Your task to perform on an android device: uninstall "Google Play services" Image 0: 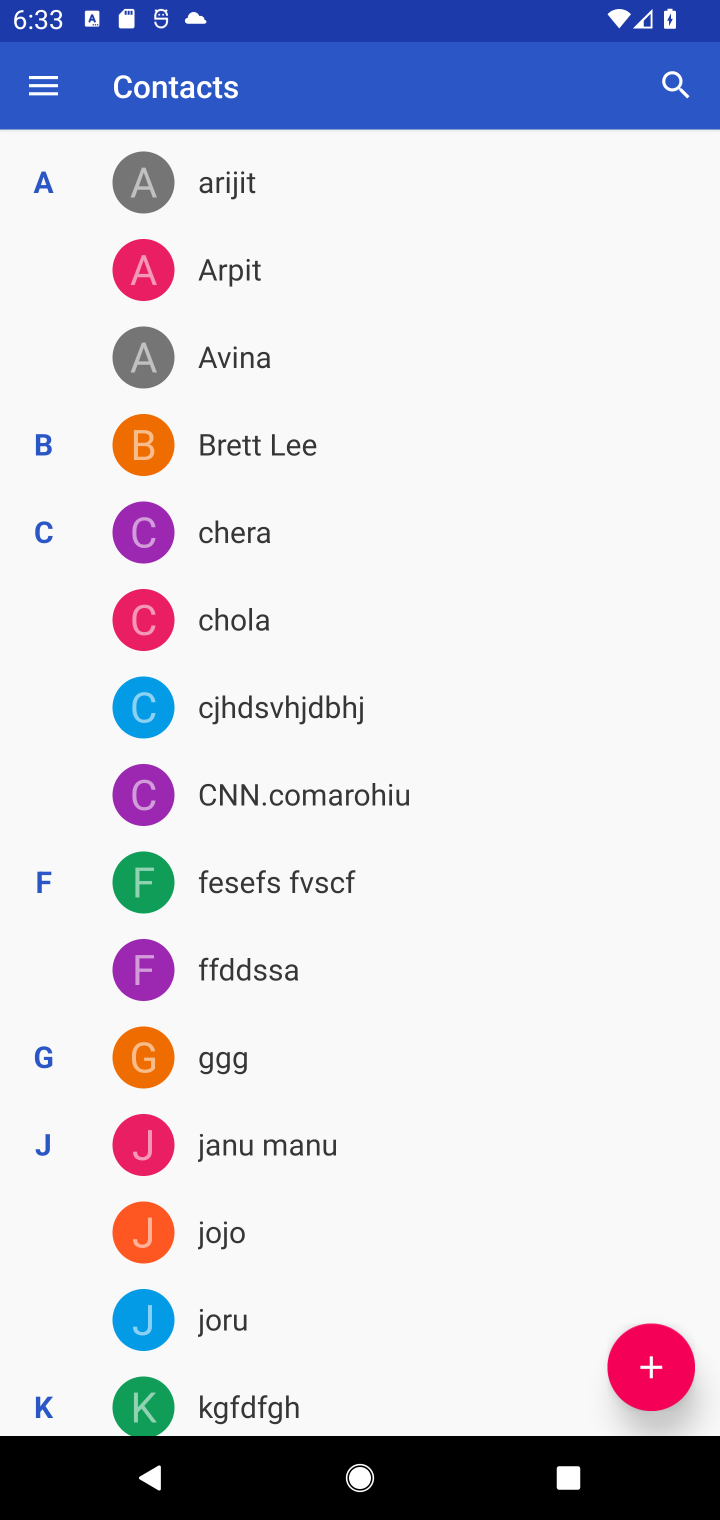
Step 0: press home button
Your task to perform on an android device: uninstall "Google Play services" Image 1: 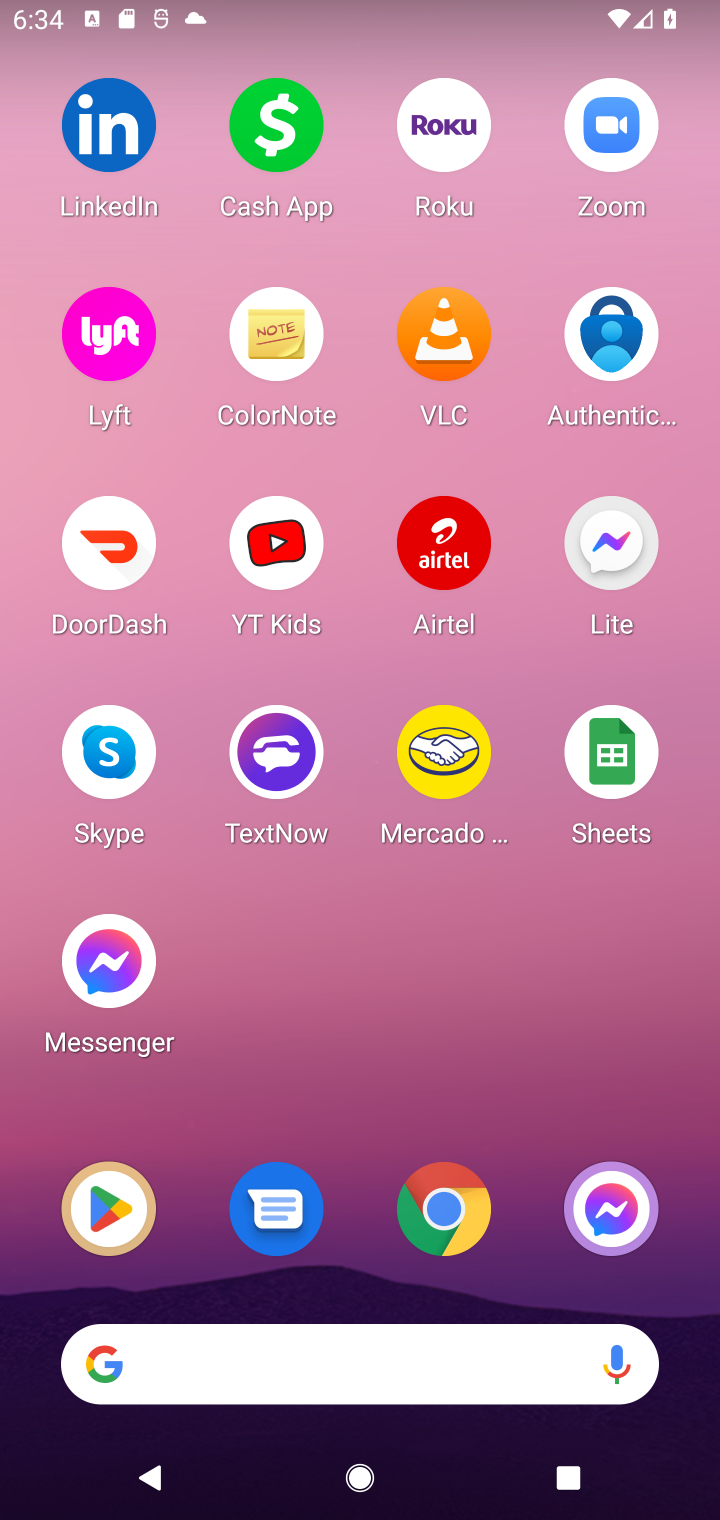
Step 1: click (86, 1215)
Your task to perform on an android device: uninstall "Google Play services" Image 2: 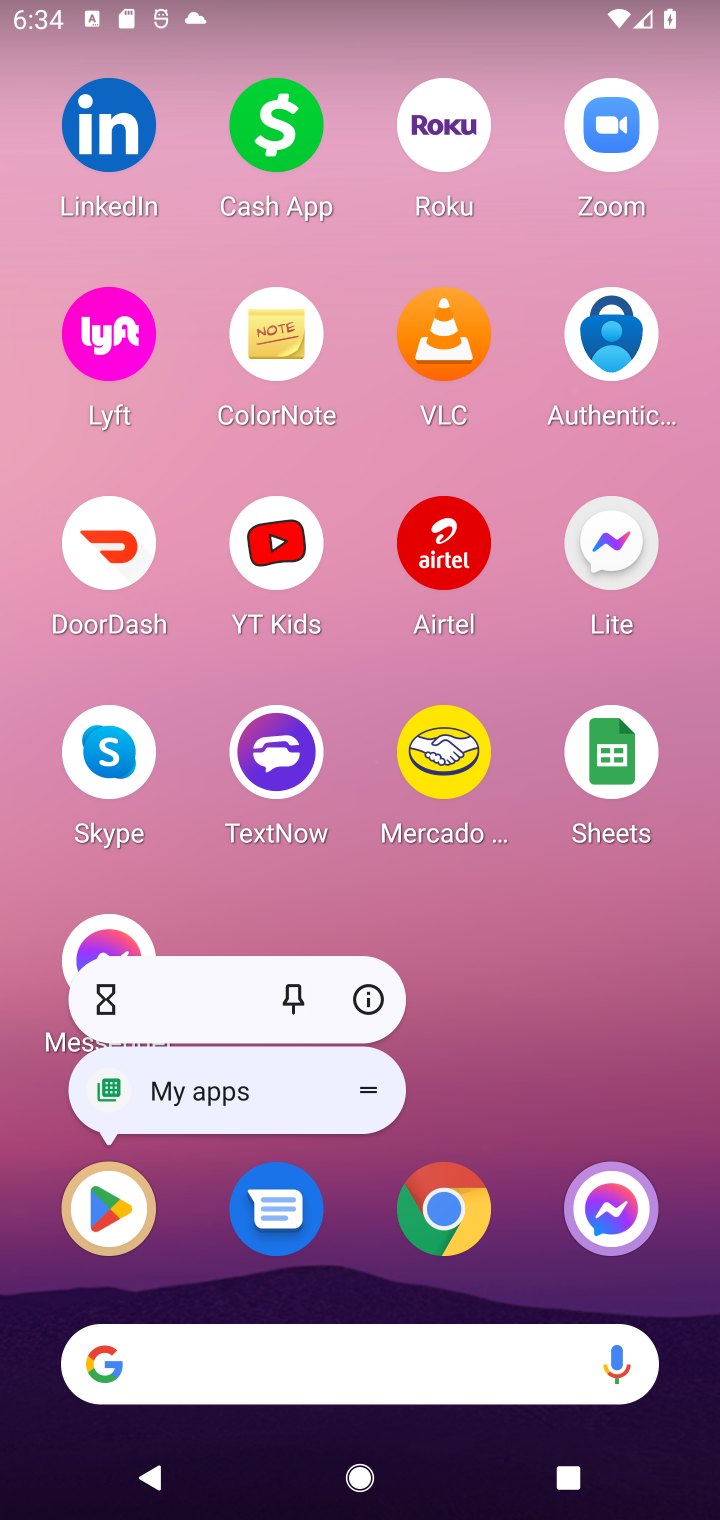
Step 2: click (90, 1223)
Your task to perform on an android device: uninstall "Google Play services" Image 3: 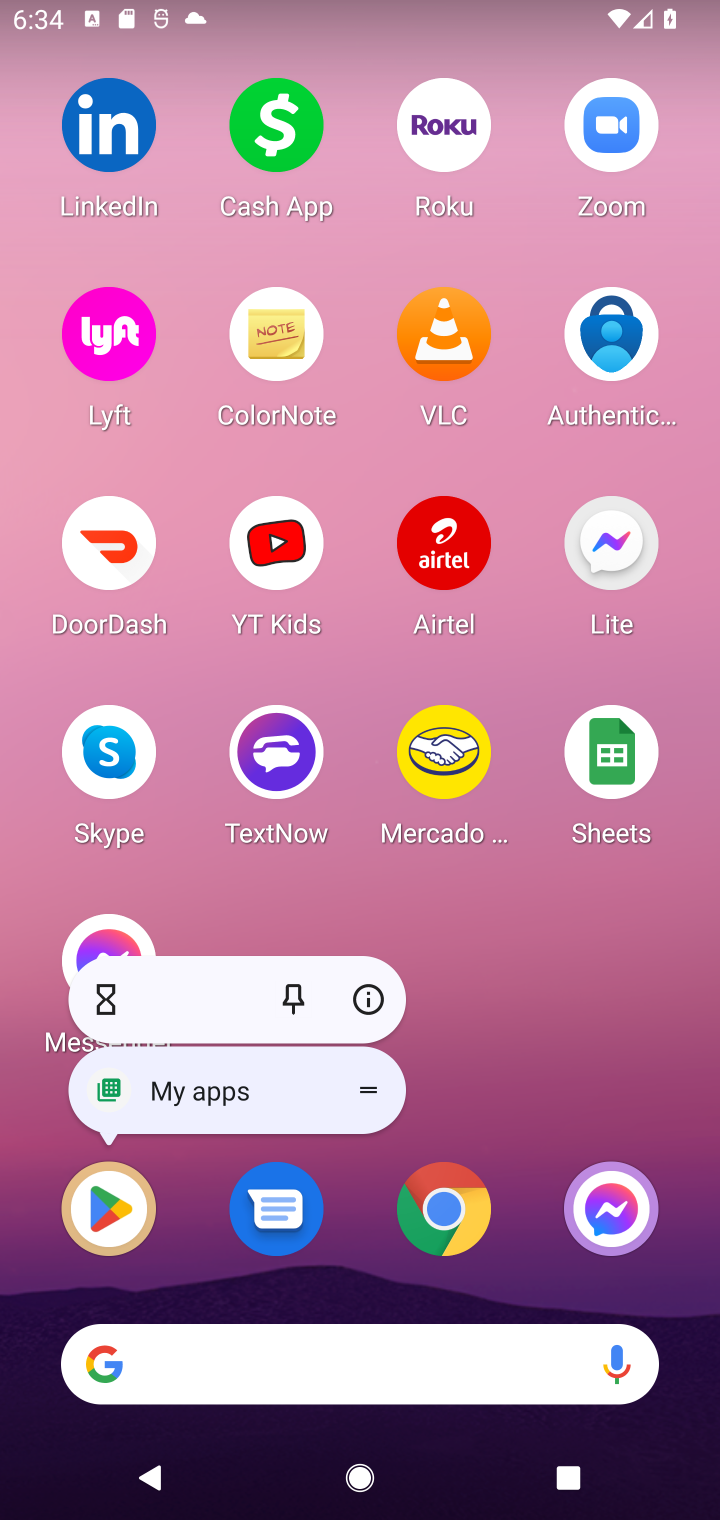
Step 3: click (92, 1222)
Your task to perform on an android device: uninstall "Google Play services" Image 4: 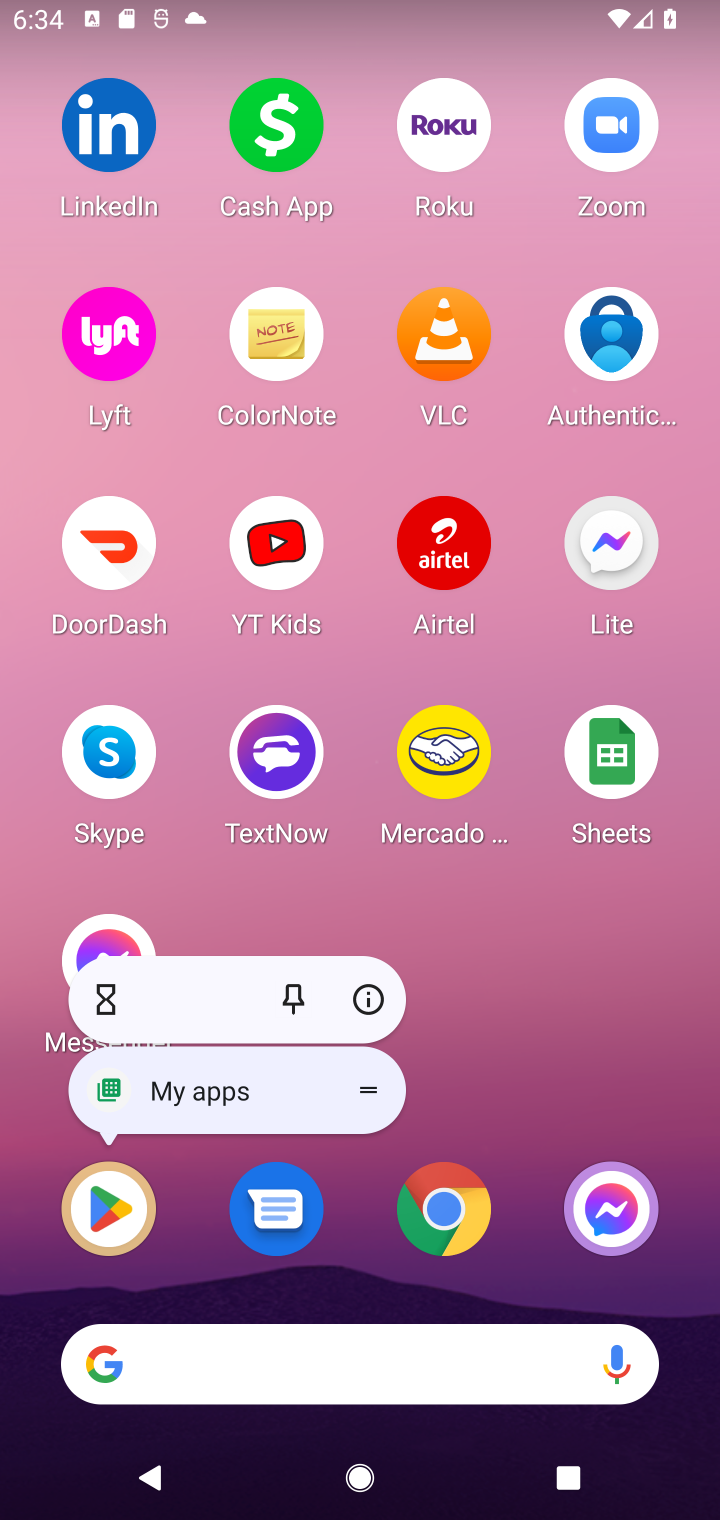
Step 4: click (92, 1222)
Your task to perform on an android device: uninstall "Google Play services" Image 5: 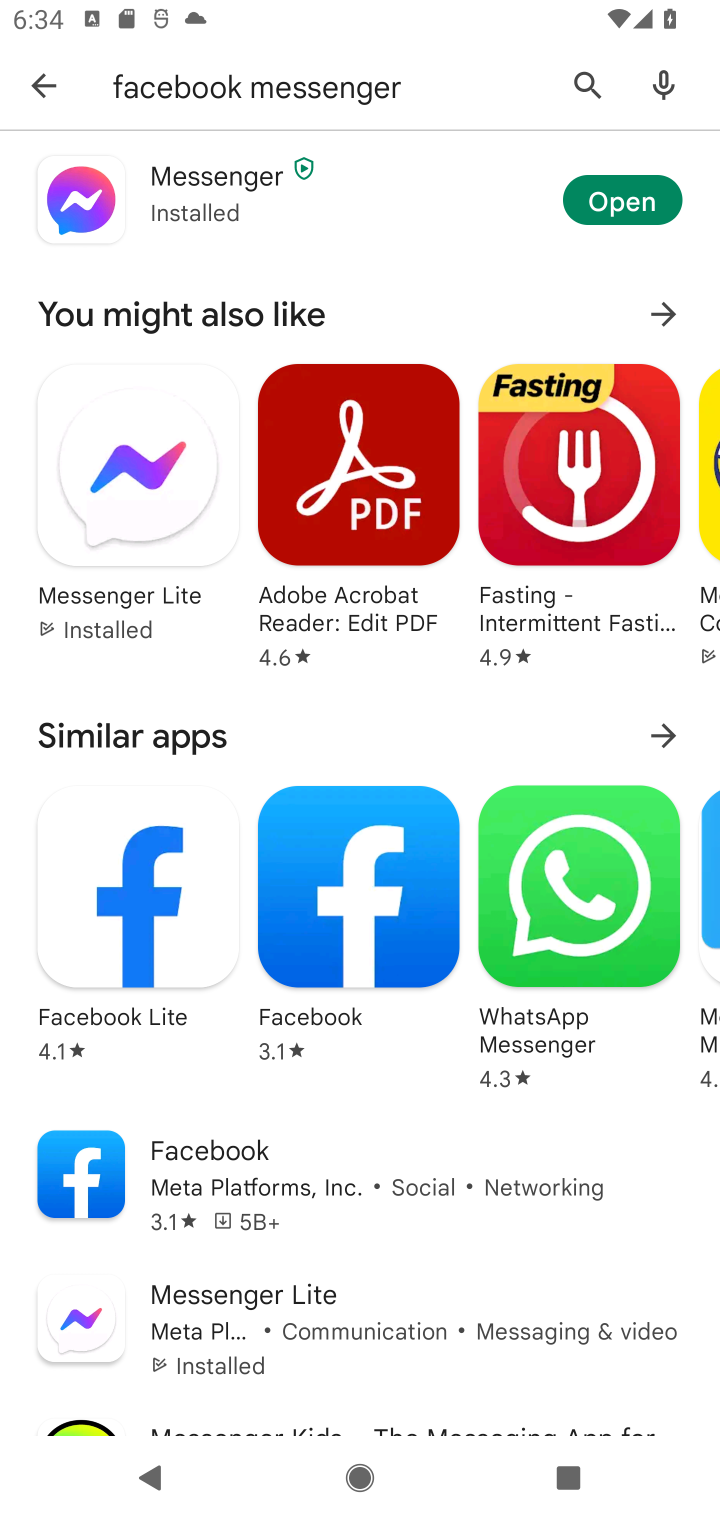
Step 5: click (562, 73)
Your task to perform on an android device: uninstall "Google Play services" Image 6: 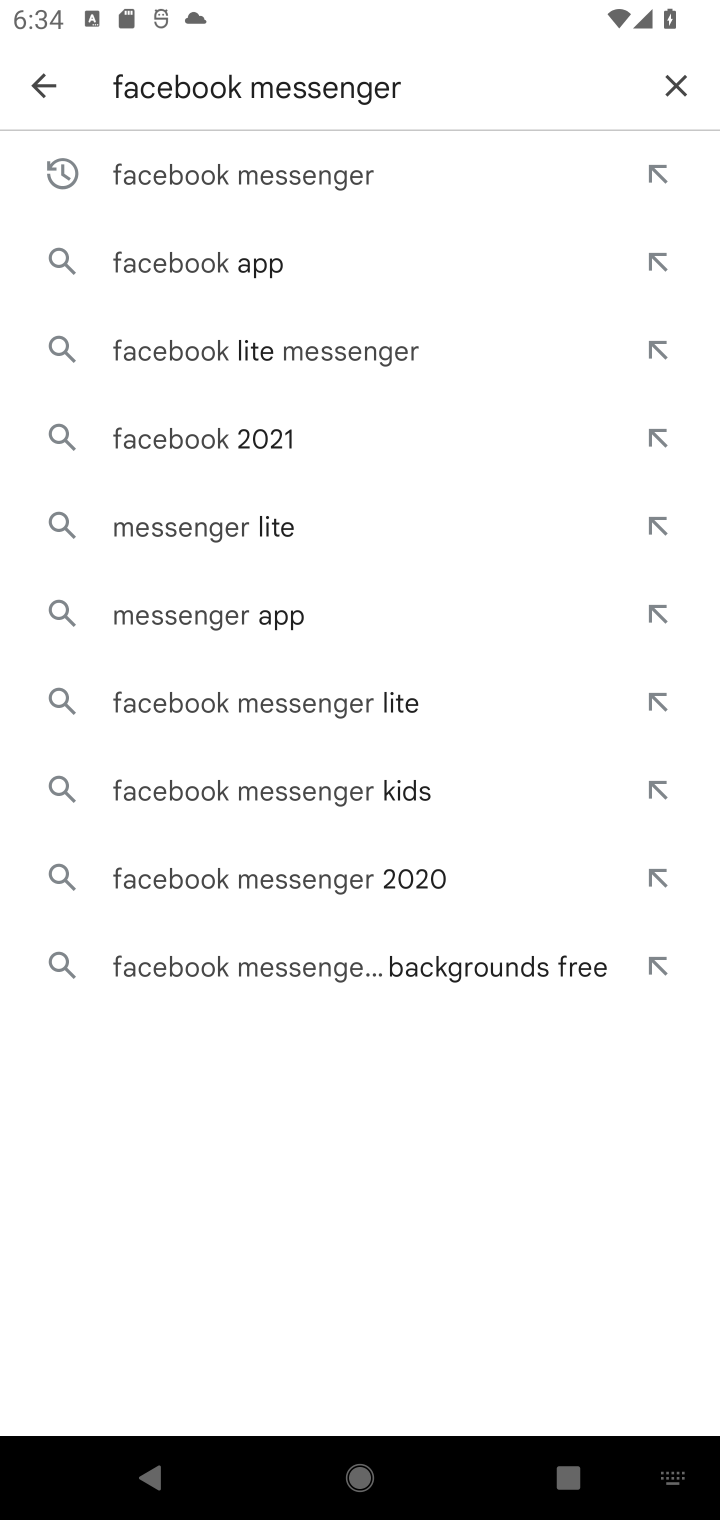
Step 6: click (690, 91)
Your task to perform on an android device: uninstall "Google Play services" Image 7: 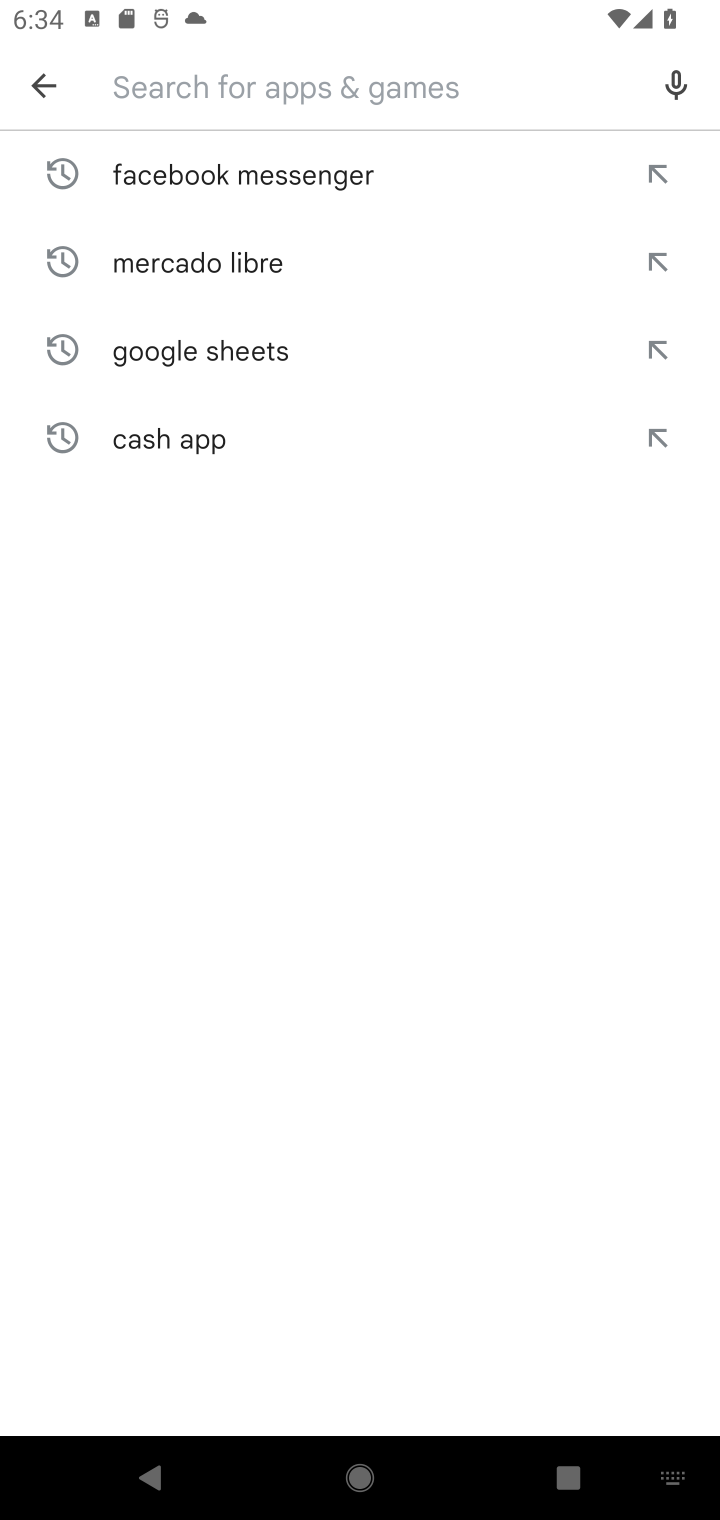
Step 7: type "Google Play services"
Your task to perform on an android device: uninstall "Google Play services" Image 8: 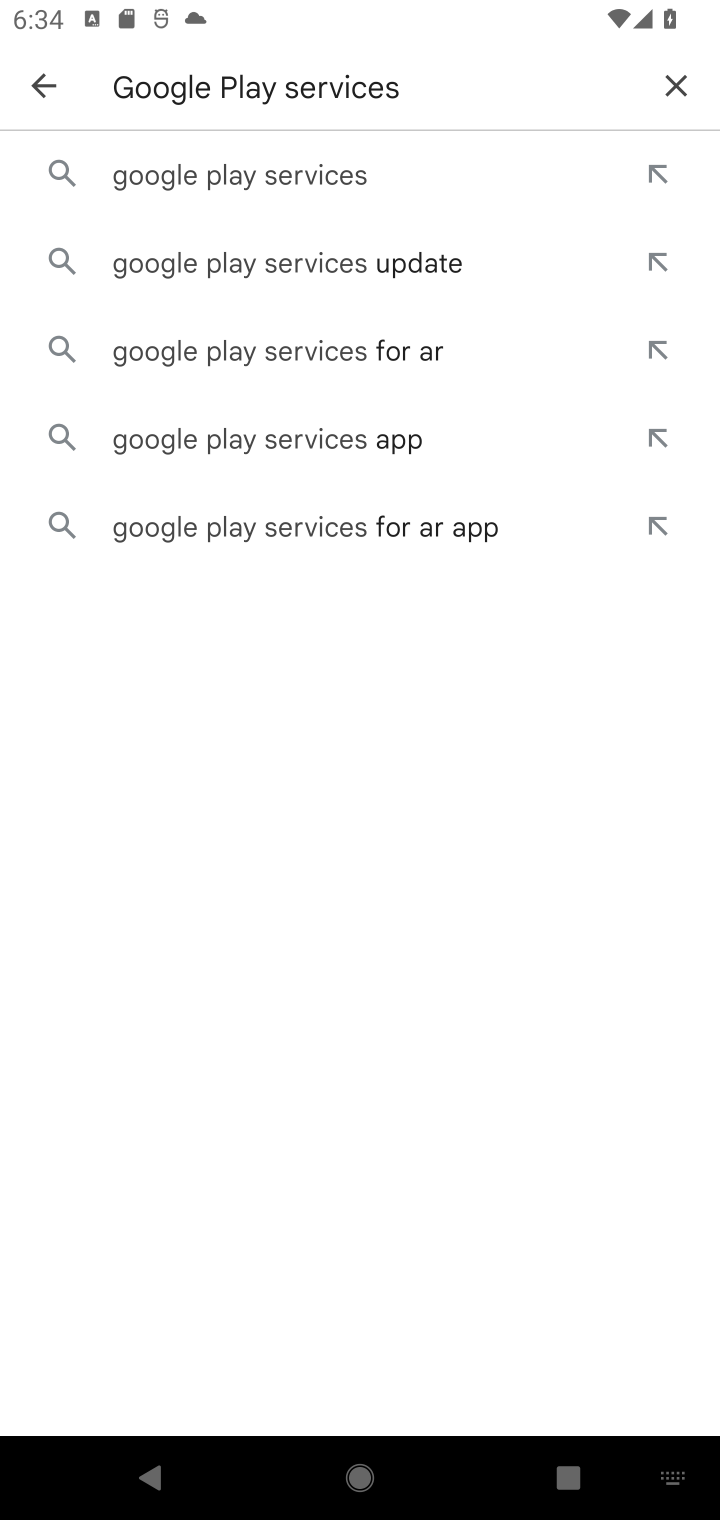
Step 8: click (268, 173)
Your task to perform on an android device: uninstall "Google Play services" Image 9: 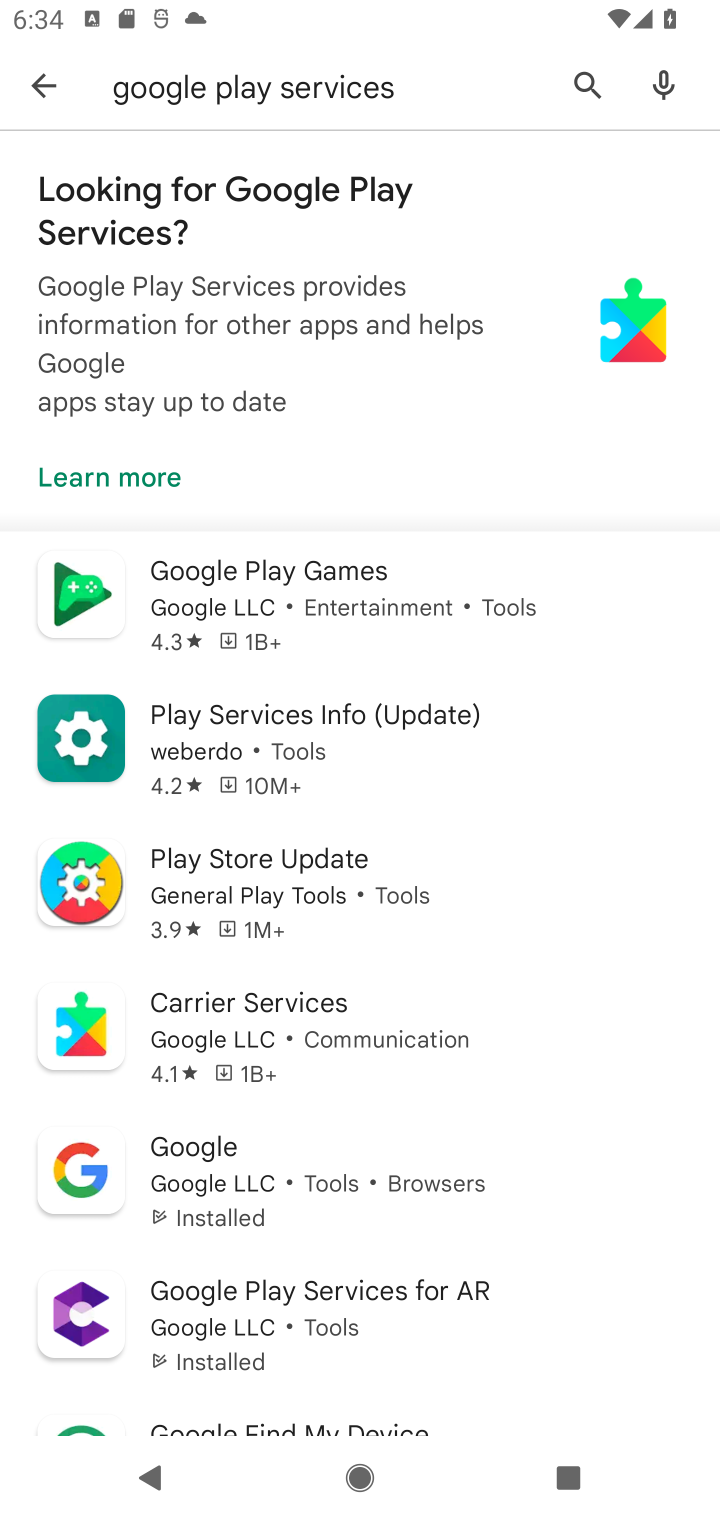
Step 9: click (241, 1319)
Your task to perform on an android device: uninstall "Google Play services" Image 10: 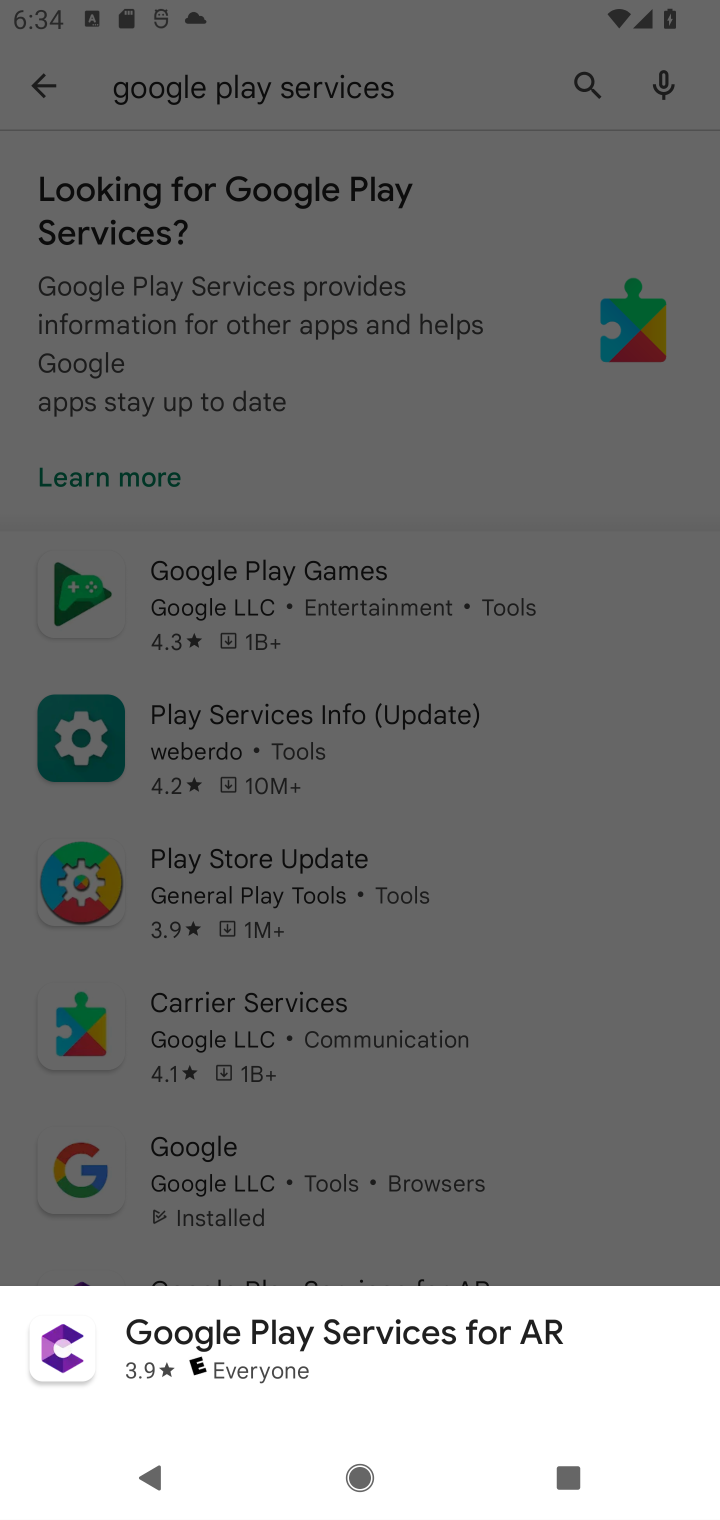
Step 10: click (234, 1338)
Your task to perform on an android device: uninstall "Google Play services" Image 11: 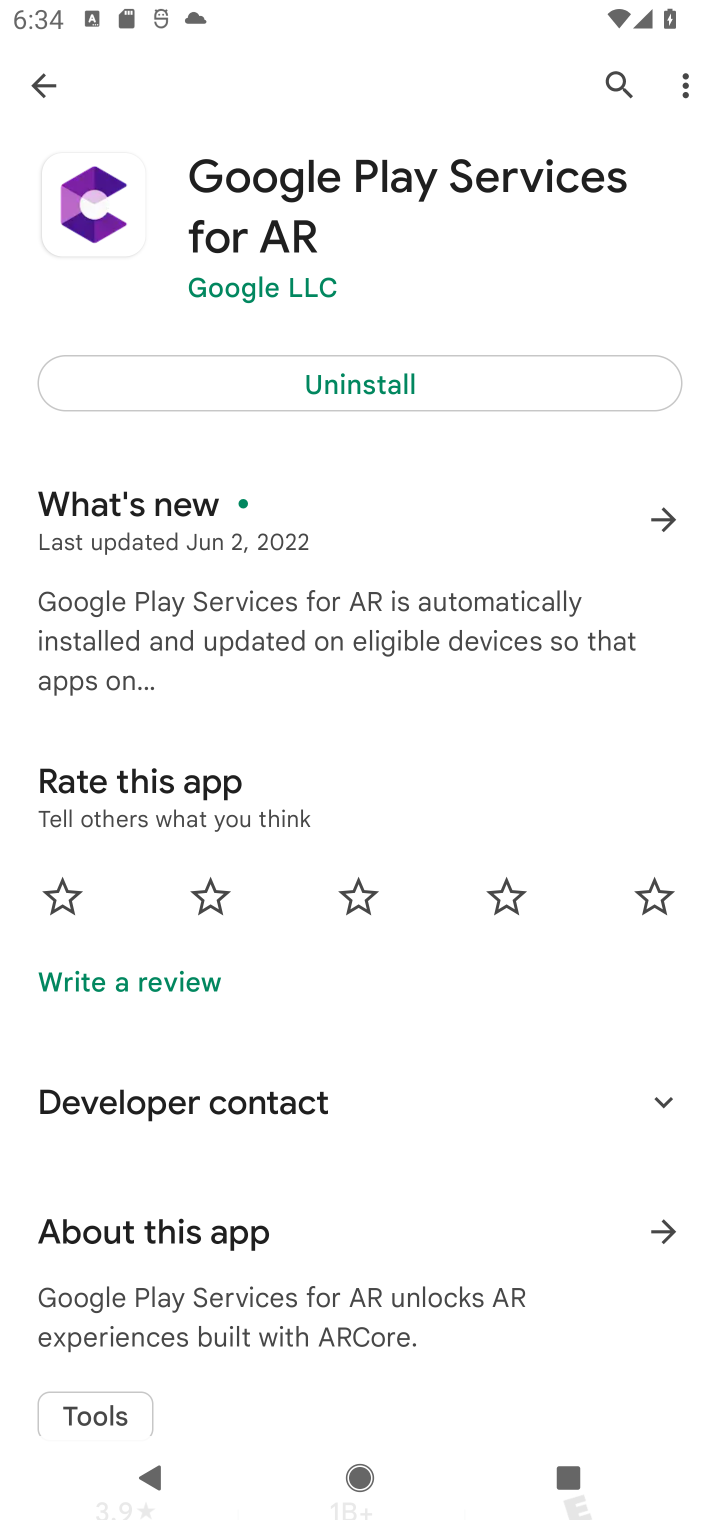
Step 11: click (351, 396)
Your task to perform on an android device: uninstall "Google Play services" Image 12: 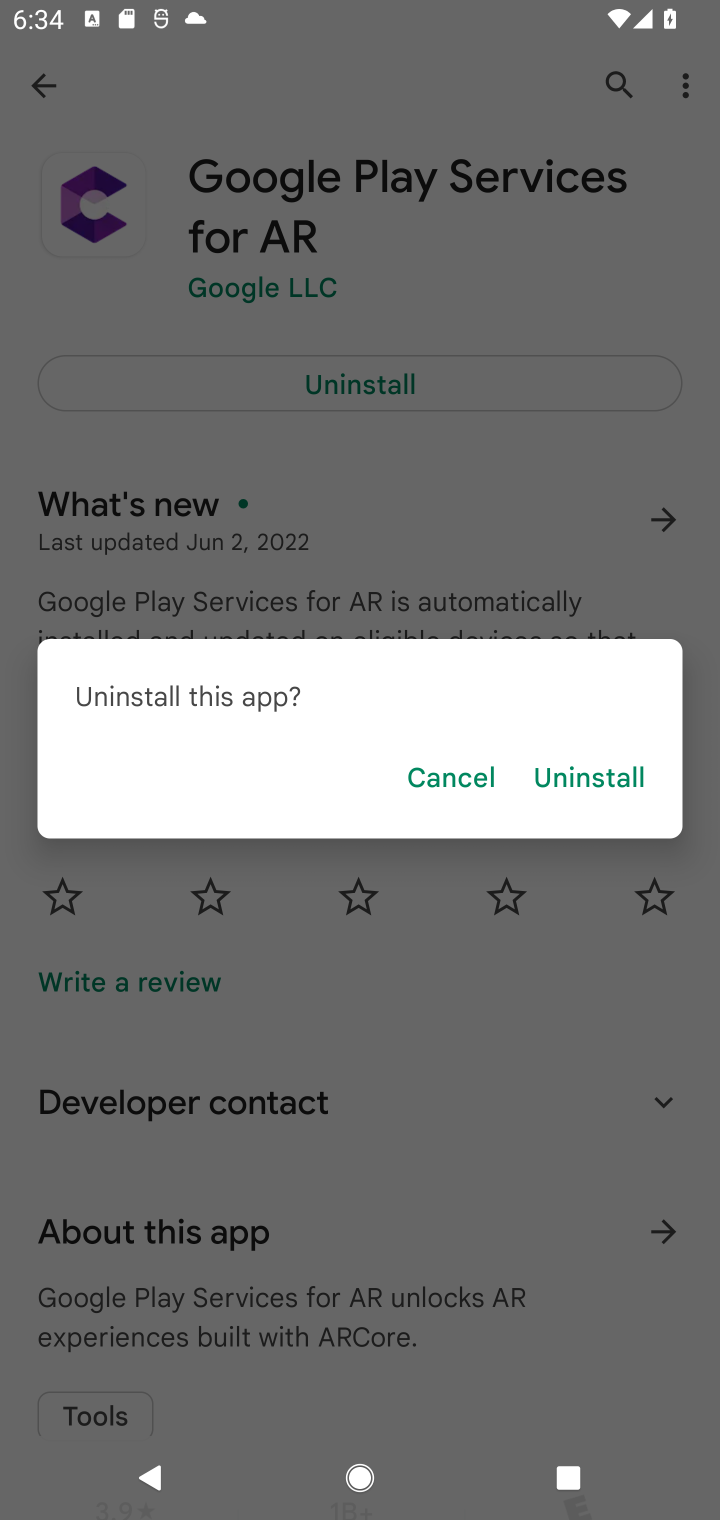
Step 12: click (543, 779)
Your task to perform on an android device: uninstall "Google Play services" Image 13: 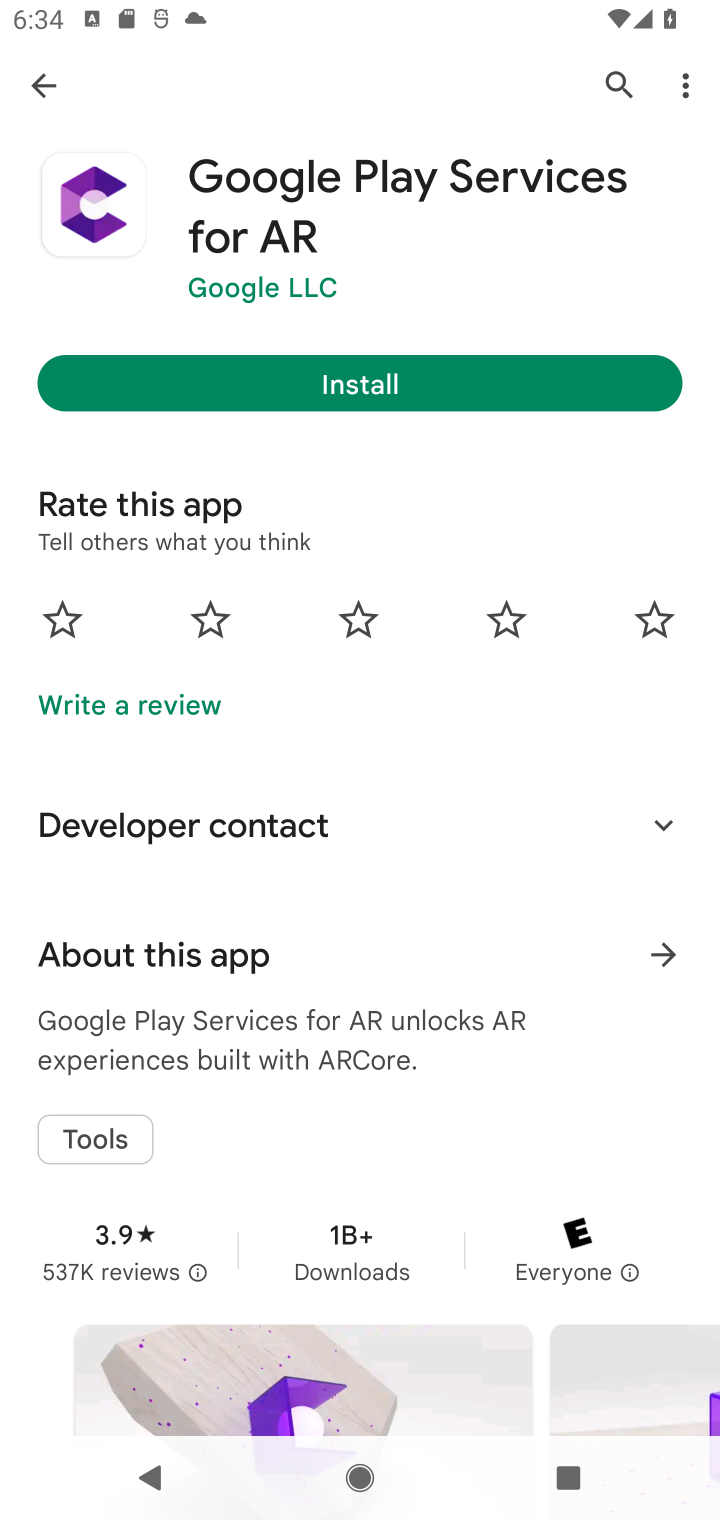
Step 13: task complete